Your task to perform on an android device: set the timer Image 0: 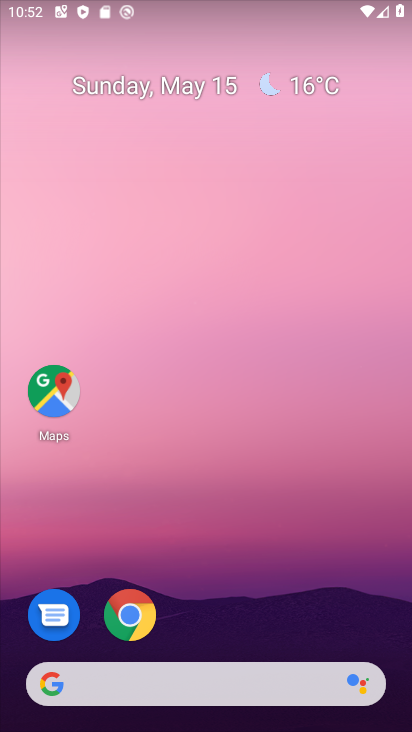
Step 0: drag from (243, 658) to (352, 119)
Your task to perform on an android device: set the timer Image 1: 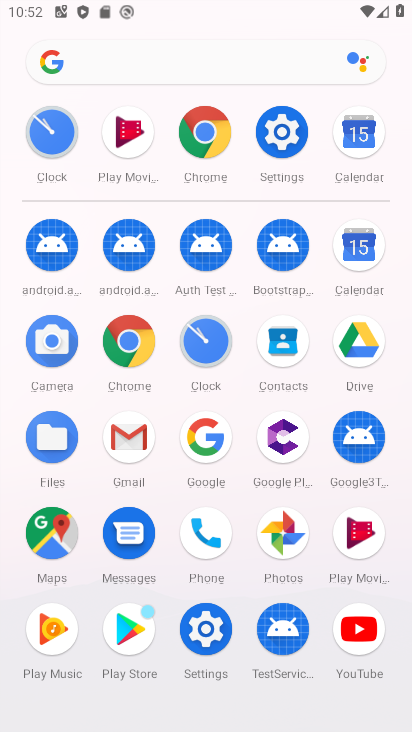
Step 1: click (206, 350)
Your task to perform on an android device: set the timer Image 2: 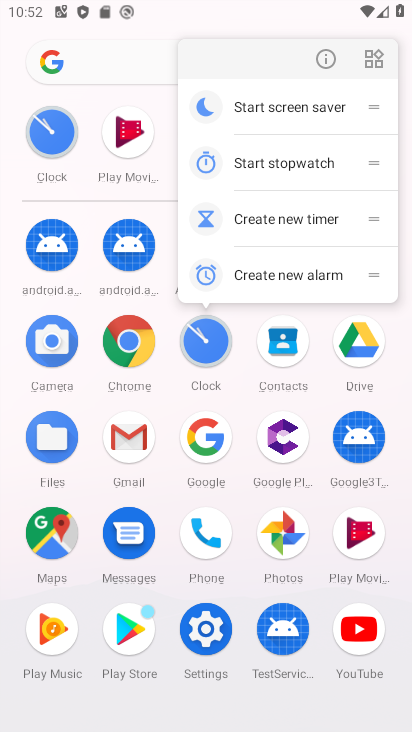
Step 2: click (193, 340)
Your task to perform on an android device: set the timer Image 3: 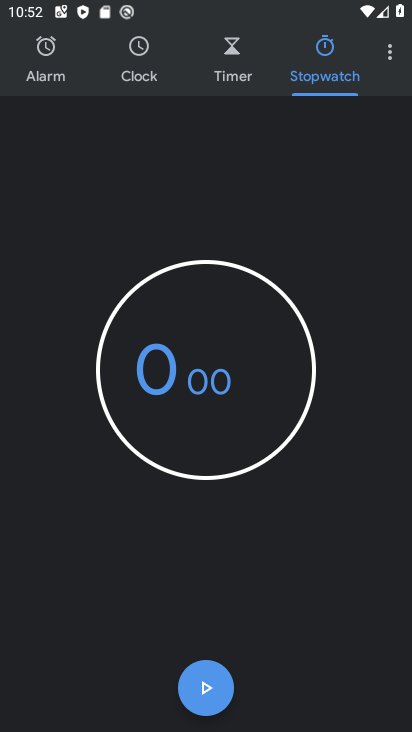
Step 3: click (235, 63)
Your task to perform on an android device: set the timer Image 4: 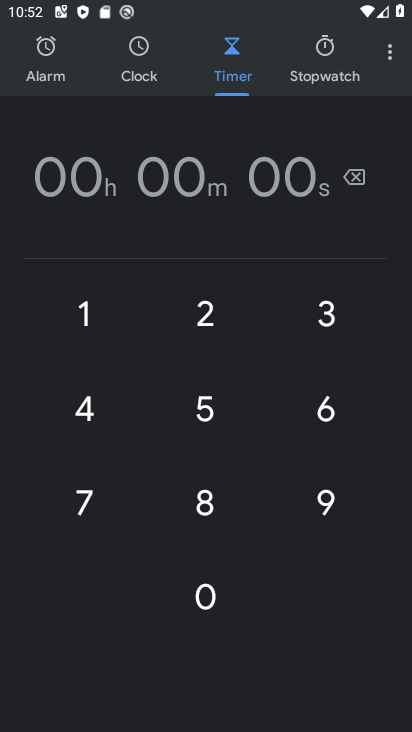
Step 4: click (230, 428)
Your task to perform on an android device: set the timer Image 5: 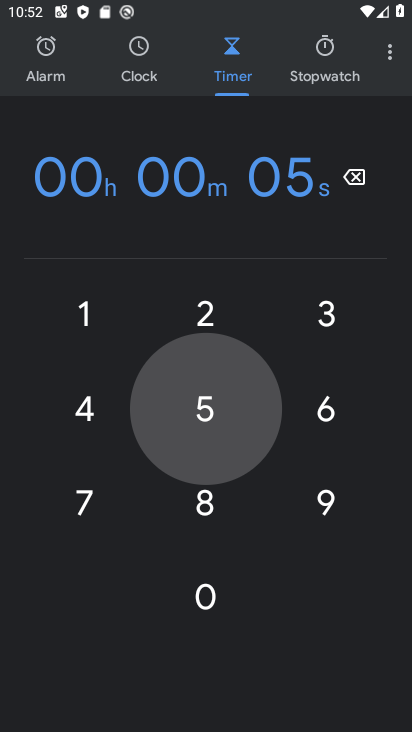
Step 5: click (333, 415)
Your task to perform on an android device: set the timer Image 6: 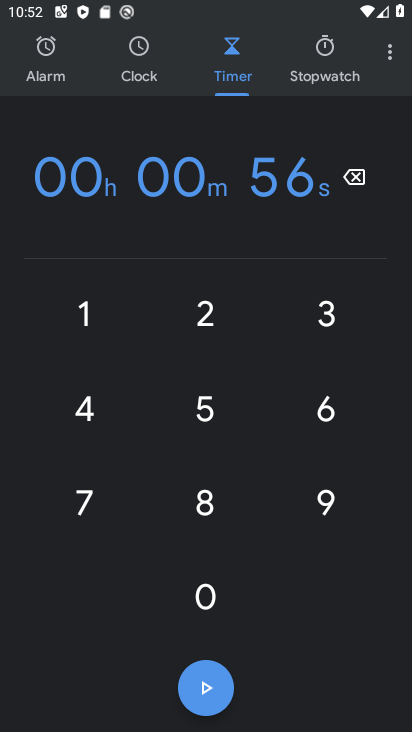
Step 6: click (207, 278)
Your task to perform on an android device: set the timer Image 7: 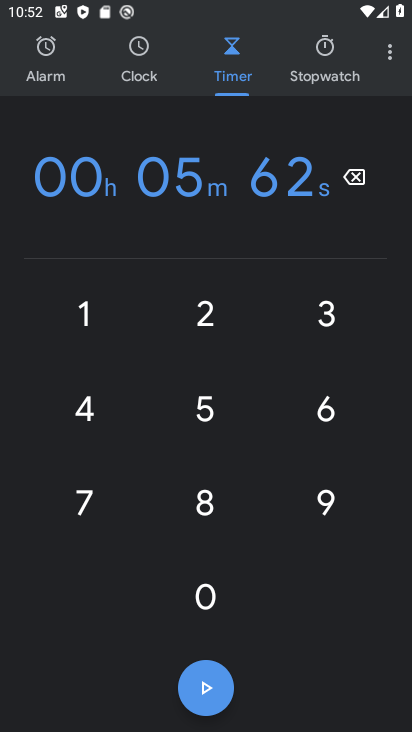
Step 7: click (355, 323)
Your task to perform on an android device: set the timer Image 8: 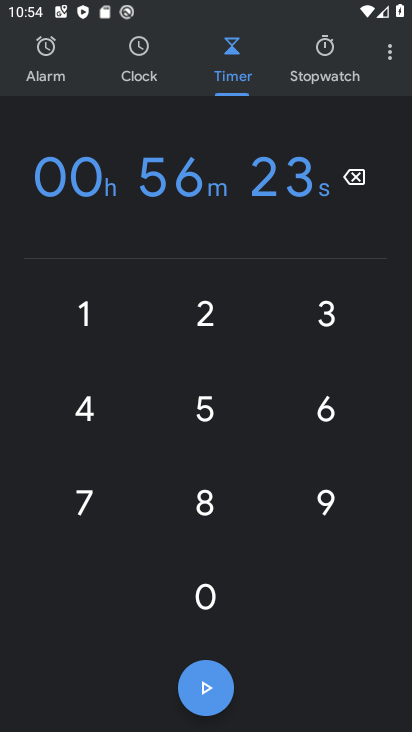
Step 8: click (204, 690)
Your task to perform on an android device: set the timer Image 9: 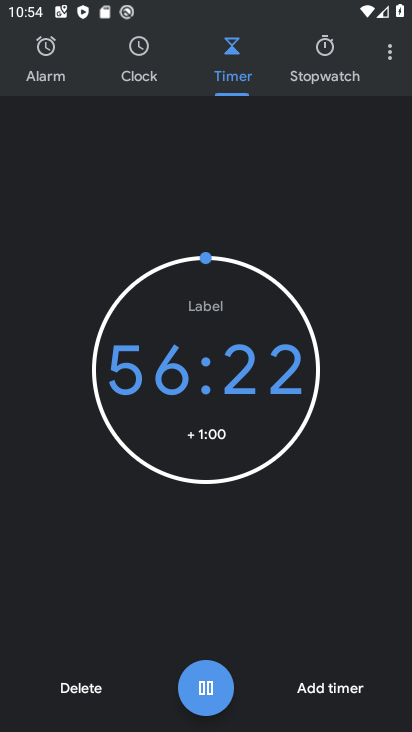
Step 9: task complete